Your task to perform on an android device: Go to CNN.com Image 0: 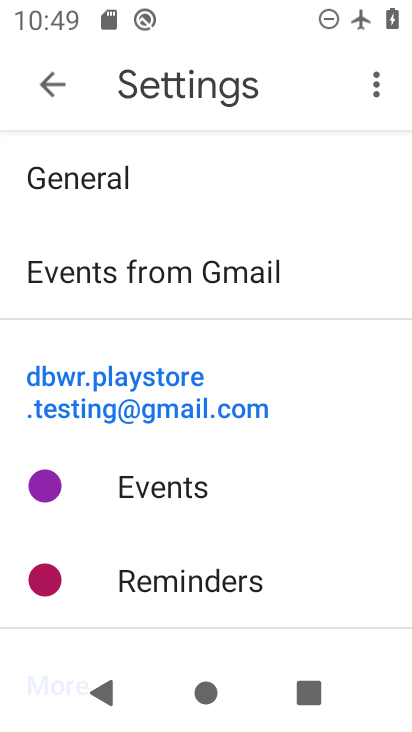
Step 0: press home button
Your task to perform on an android device: Go to CNN.com Image 1: 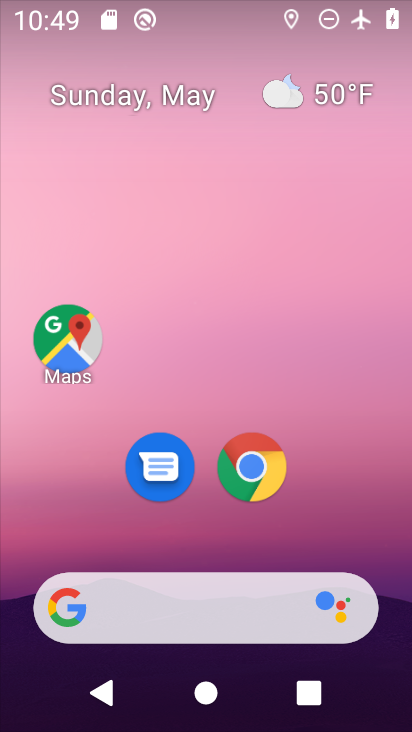
Step 1: click (250, 479)
Your task to perform on an android device: Go to CNN.com Image 2: 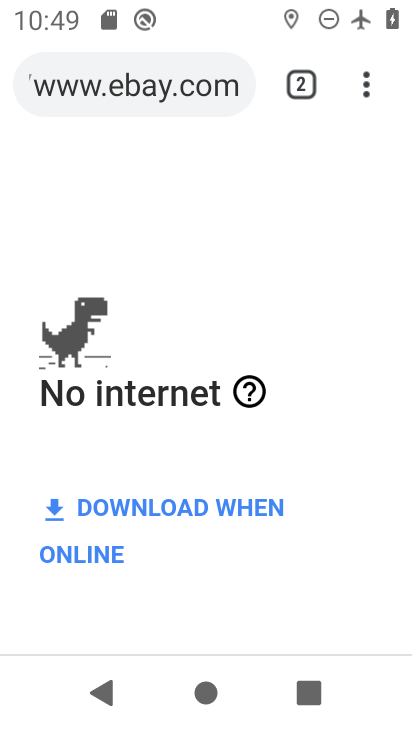
Step 2: click (291, 86)
Your task to perform on an android device: Go to CNN.com Image 3: 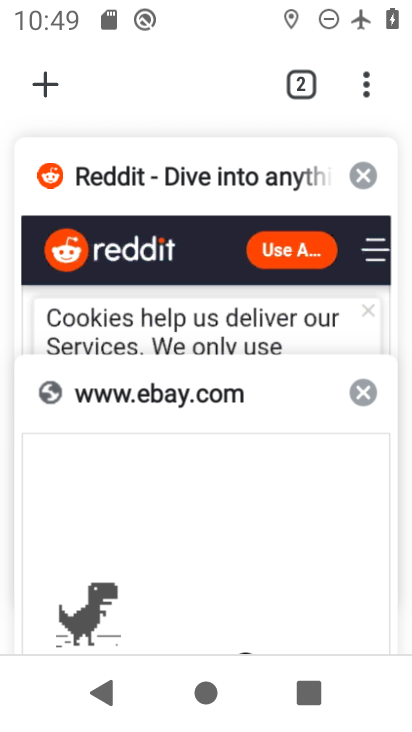
Step 3: click (32, 85)
Your task to perform on an android device: Go to CNN.com Image 4: 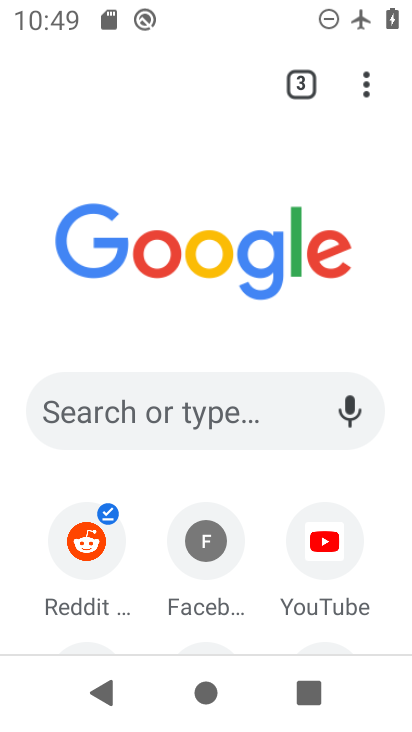
Step 4: drag from (239, 499) to (288, 89)
Your task to perform on an android device: Go to CNN.com Image 5: 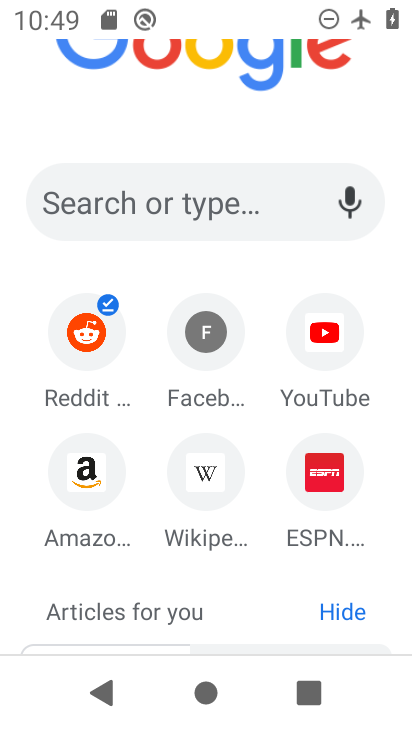
Step 5: click (218, 202)
Your task to perform on an android device: Go to CNN.com Image 6: 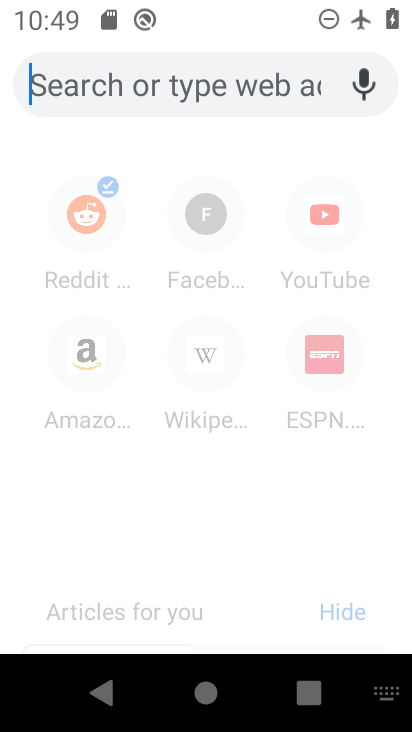
Step 6: type "CNN.com"
Your task to perform on an android device: Go to CNN.com Image 7: 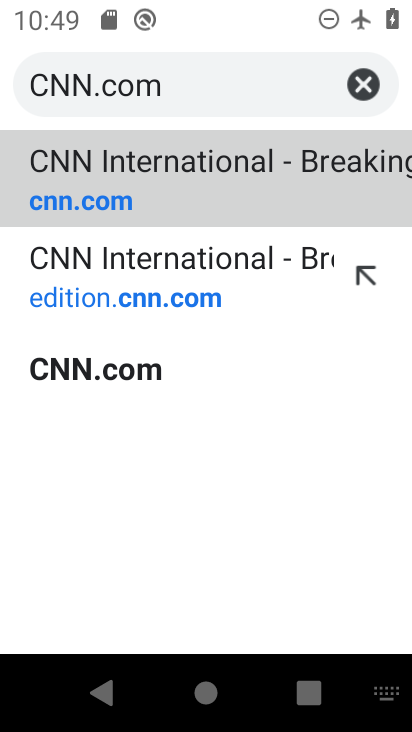
Step 7: click (105, 372)
Your task to perform on an android device: Go to CNN.com Image 8: 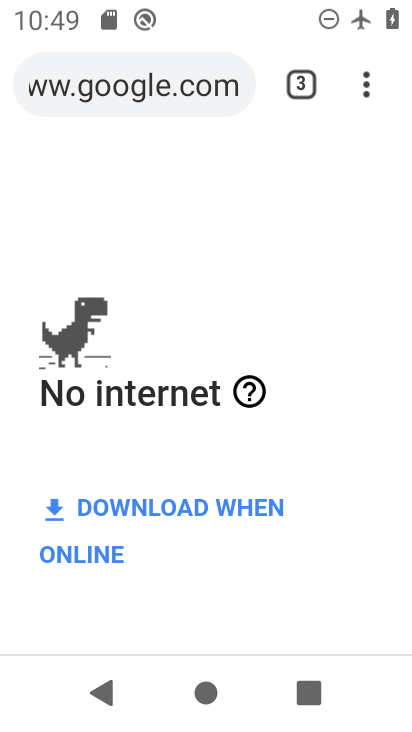
Step 8: task complete